Your task to perform on an android device: Go to wifi settings Image 0: 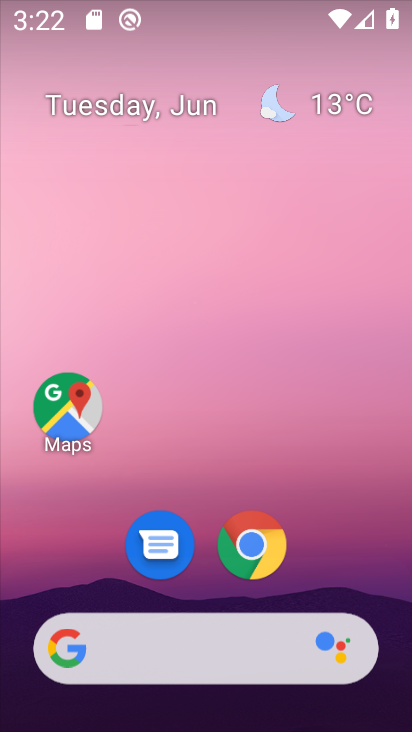
Step 0: drag from (215, 593) to (123, 12)
Your task to perform on an android device: Go to wifi settings Image 1: 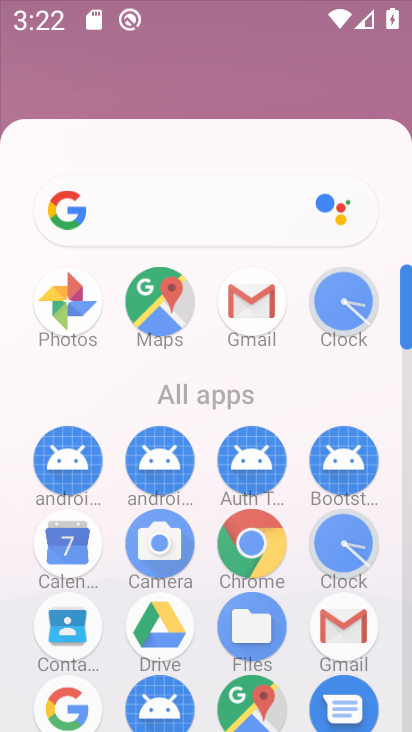
Step 1: drag from (166, 597) to (140, 124)
Your task to perform on an android device: Go to wifi settings Image 2: 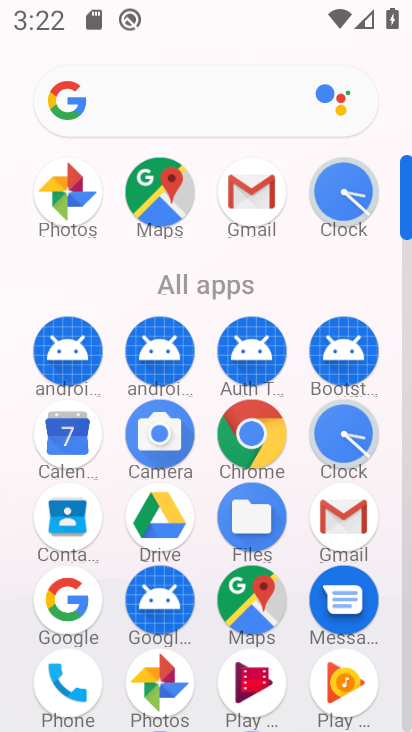
Step 2: drag from (200, 375) to (202, 253)
Your task to perform on an android device: Go to wifi settings Image 3: 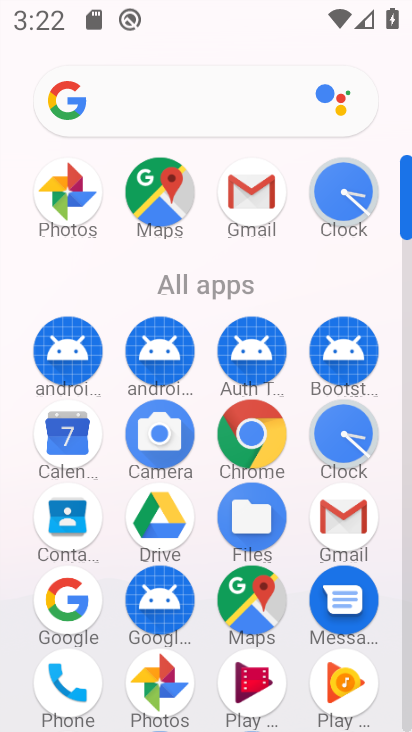
Step 3: drag from (207, 438) to (215, 223)
Your task to perform on an android device: Go to wifi settings Image 4: 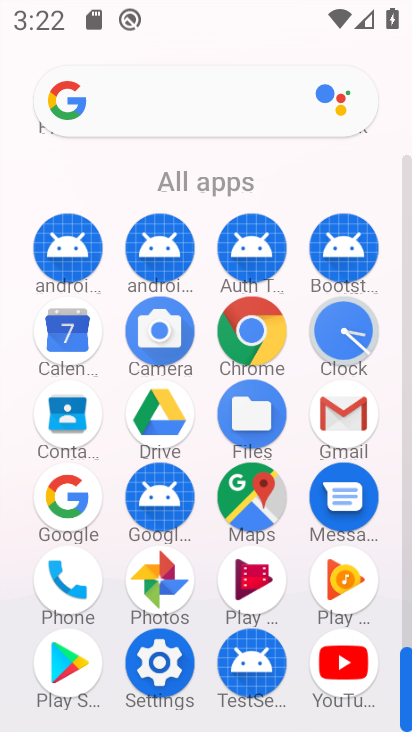
Step 4: drag from (191, 349) to (191, 277)
Your task to perform on an android device: Go to wifi settings Image 5: 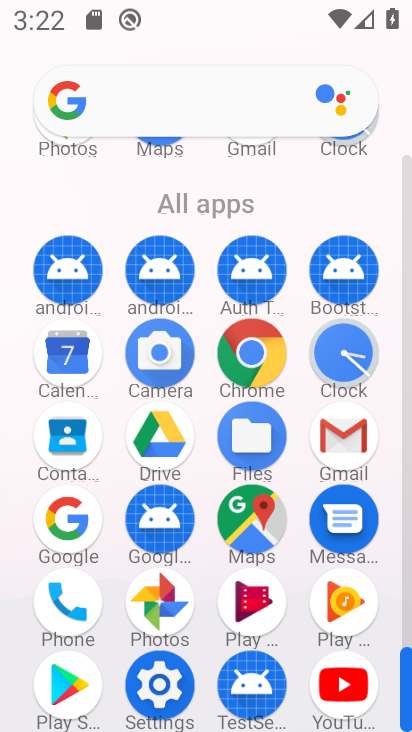
Step 5: drag from (237, 519) to (251, 362)
Your task to perform on an android device: Go to wifi settings Image 6: 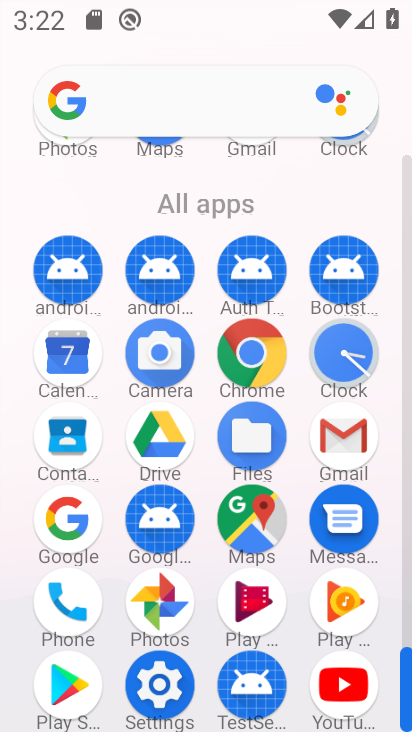
Step 6: click (171, 689)
Your task to perform on an android device: Go to wifi settings Image 7: 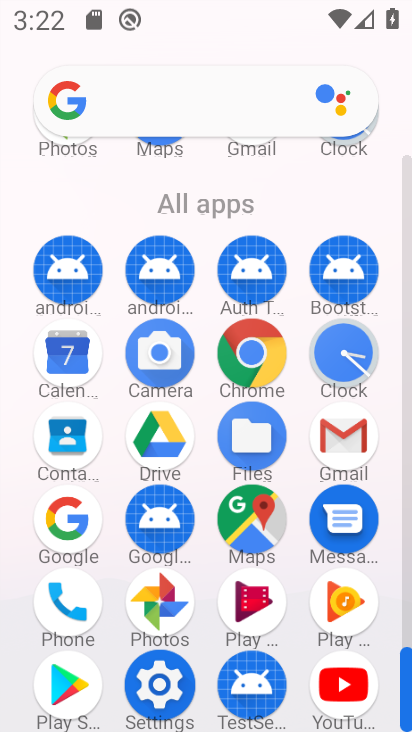
Step 7: click (171, 689)
Your task to perform on an android device: Go to wifi settings Image 8: 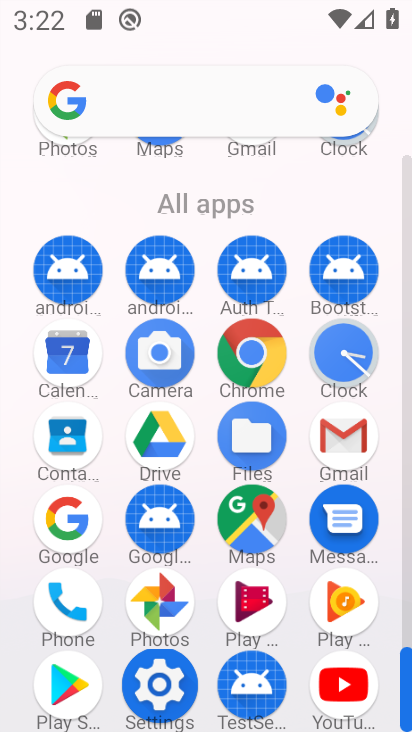
Step 8: click (170, 689)
Your task to perform on an android device: Go to wifi settings Image 9: 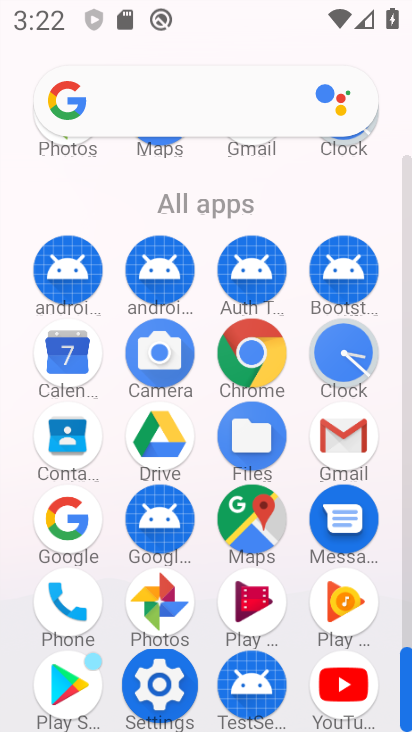
Step 9: click (149, 693)
Your task to perform on an android device: Go to wifi settings Image 10: 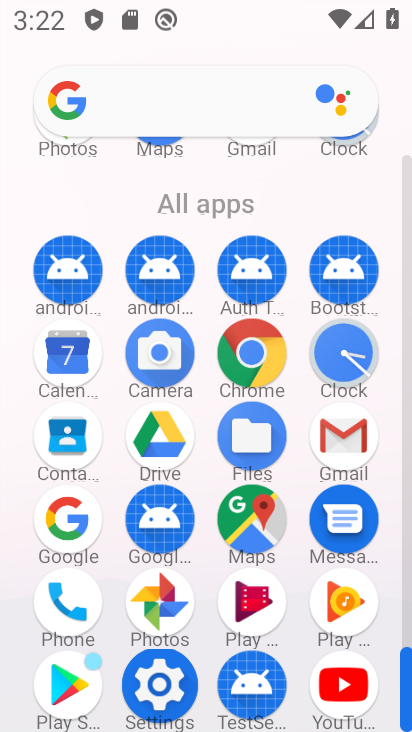
Step 10: click (146, 706)
Your task to perform on an android device: Go to wifi settings Image 11: 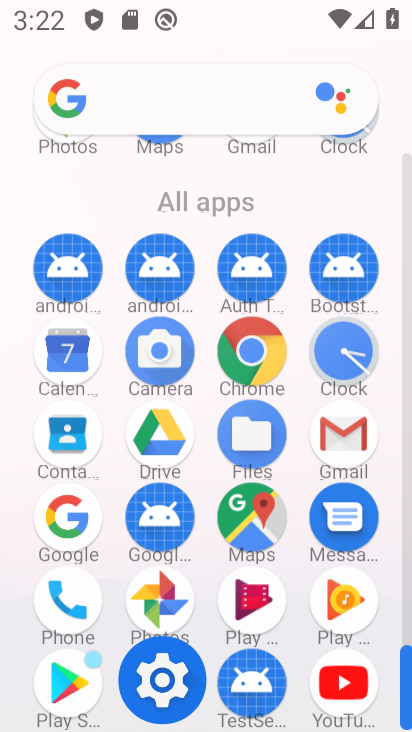
Step 11: click (145, 706)
Your task to perform on an android device: Go to wifi settings Image 12: 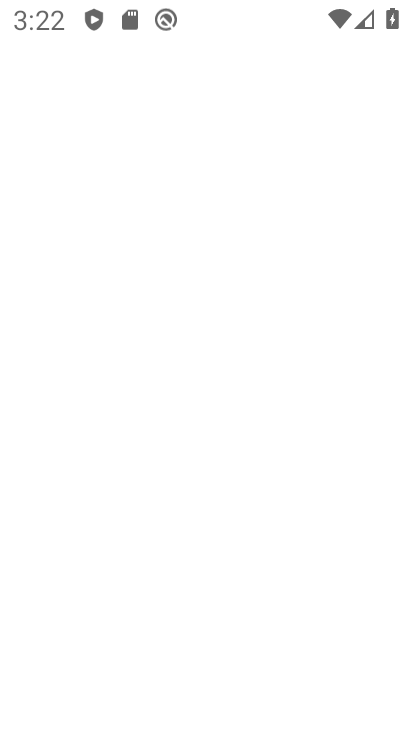
Step 12: click (145, 706)
Your task to perform on an android device: Go to wifi settings Image 13: 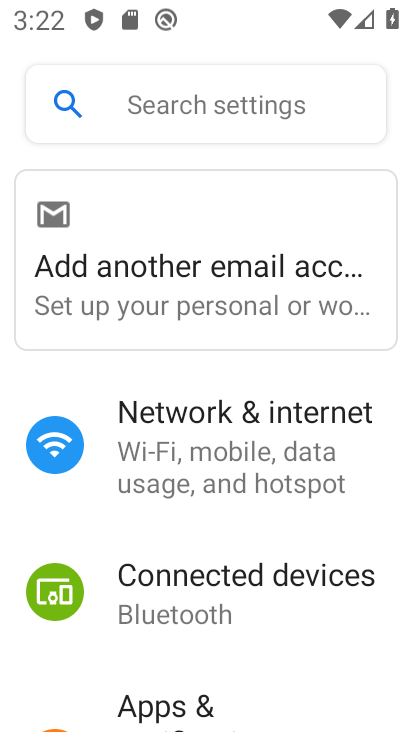
Step 13: click (224, 456)
Your task to perform on an android device: Go to wifi settings Image 14: 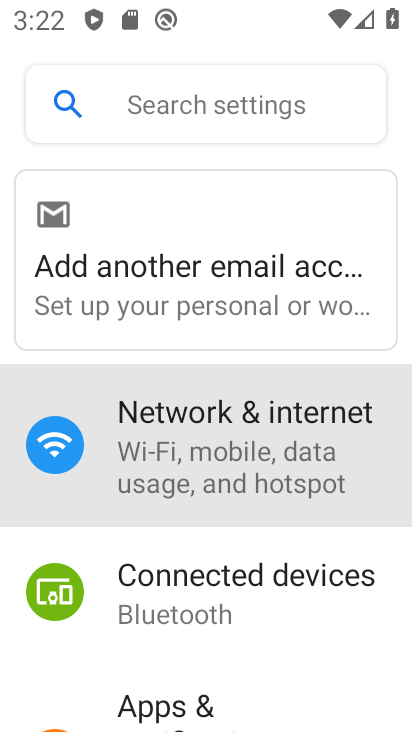
Step 14: click (223, 455)
Your task to perform on an android device: Go to wifi settings Image 15: 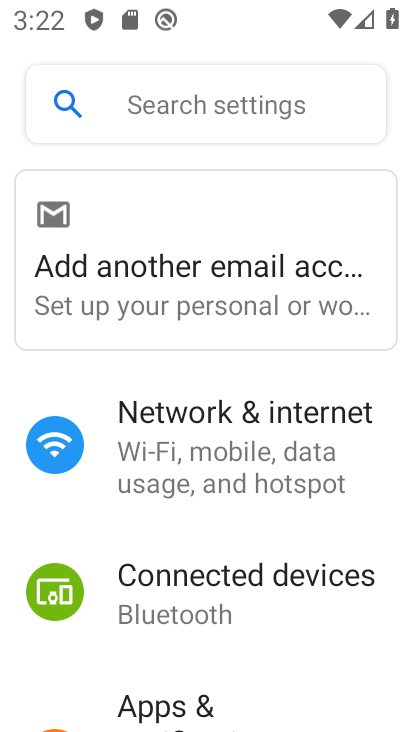
Step 15: click (220, 459)
Your task to perform on an android device: Go to wifi settings Image 16: 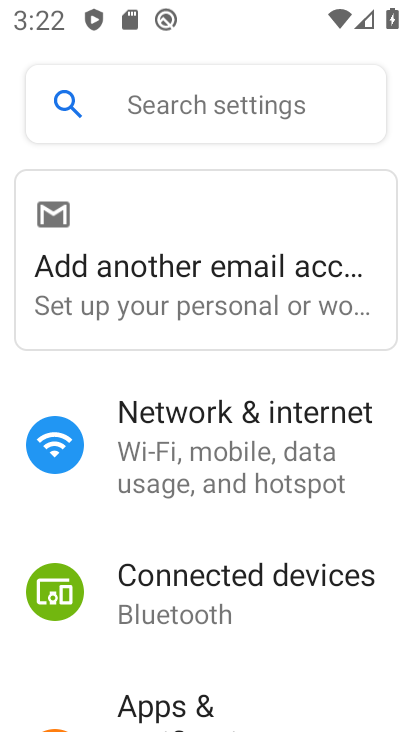
Step 16: click (221, 453)
Your task to perform on an android device: Go to wifi settings Image 17: 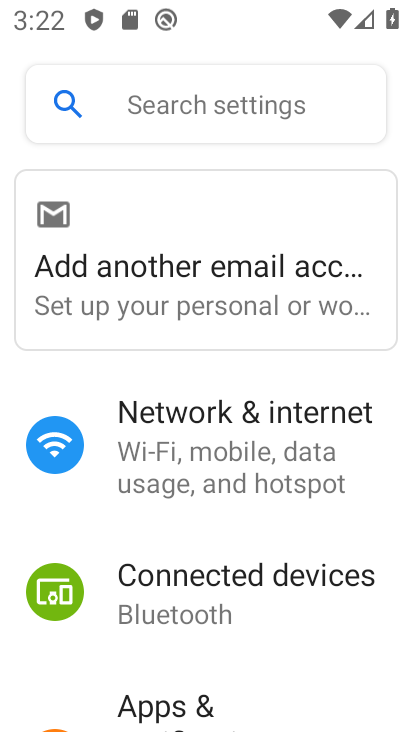
Step 17: click (221, 452)
Your task to perform on an android device: Go to wifi settings Image 18: 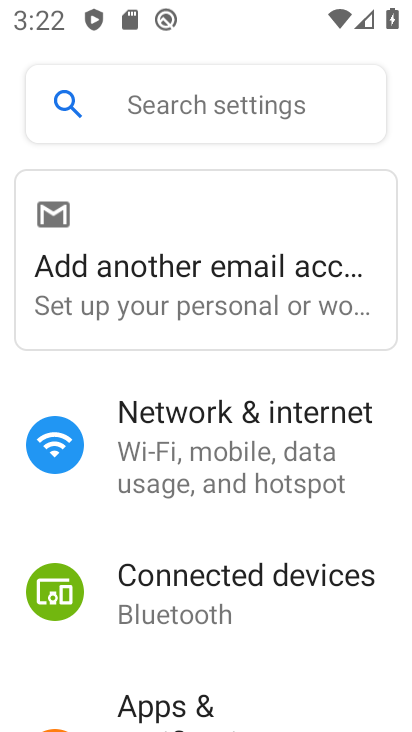
Step 18: click (225, 461)
Your task to perform on an android device: Go to wifi settings Image 19: 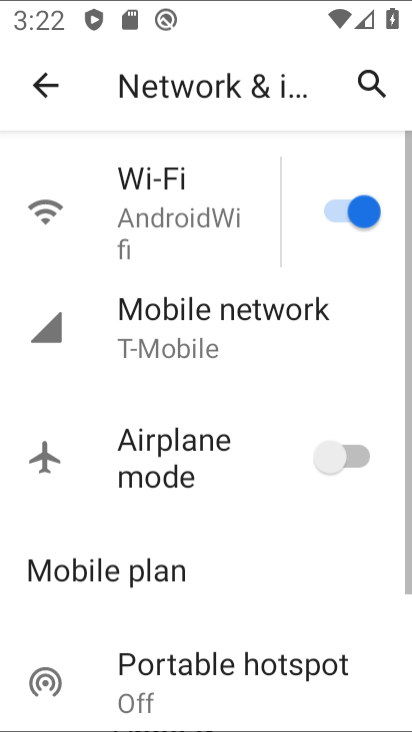
Step 19: click (229, 463)
Your task to perform on an android device: Go to wifi settings Image 20: 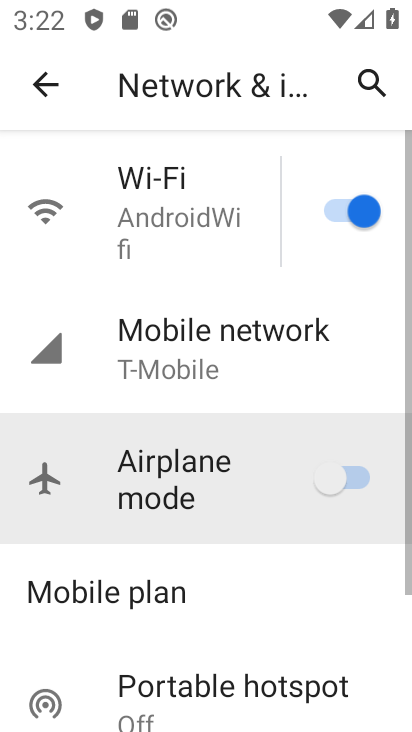
Step 20: click (233, 469)
Your task to perform on an android device: Go to wifi settings Image 21: 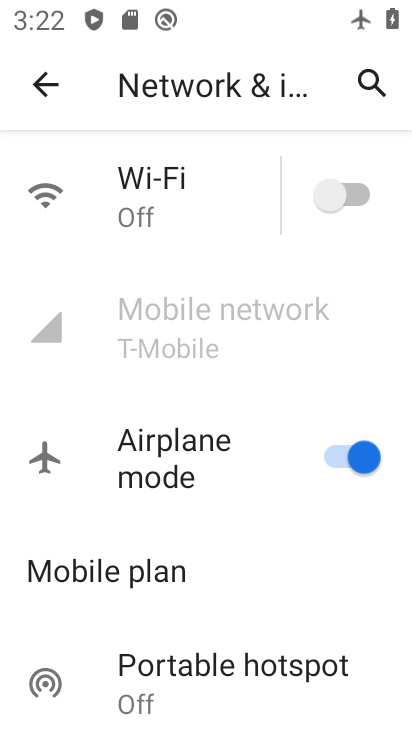
Step 21: click (327, 208)
Your task to perform on an android device: Go to wifi settings Image 22: 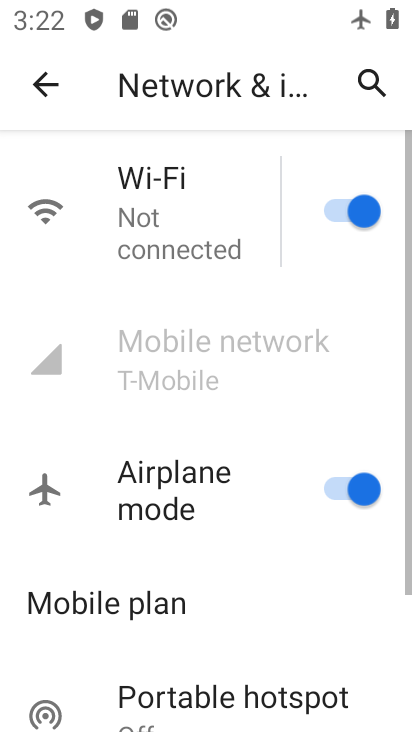
Step 22: task complete